Your task to perform on an android device: Open settings Image 0: 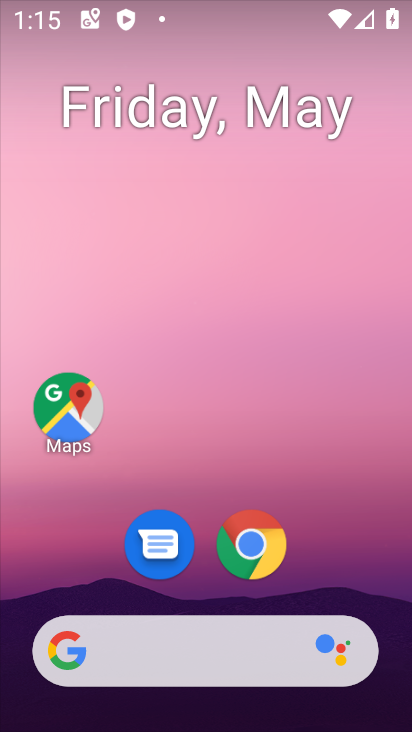
Step 0: drag from (20, 680) to (287, 155)
Your task to perform on an android device: Open settings Image 1: 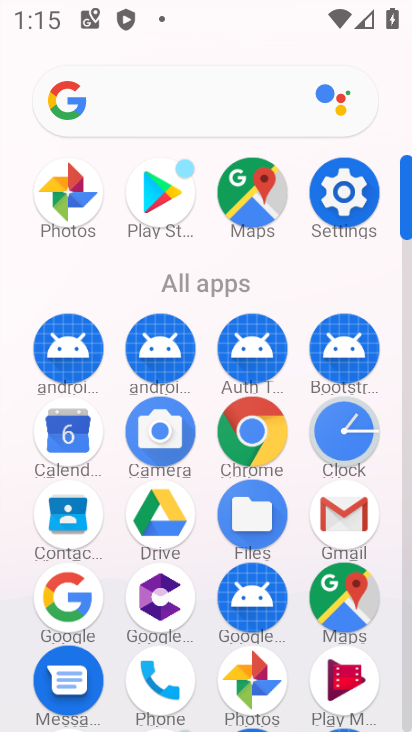
Step 1: click (334, 203)
Your task to perform on an android device: Open settings Image 2: 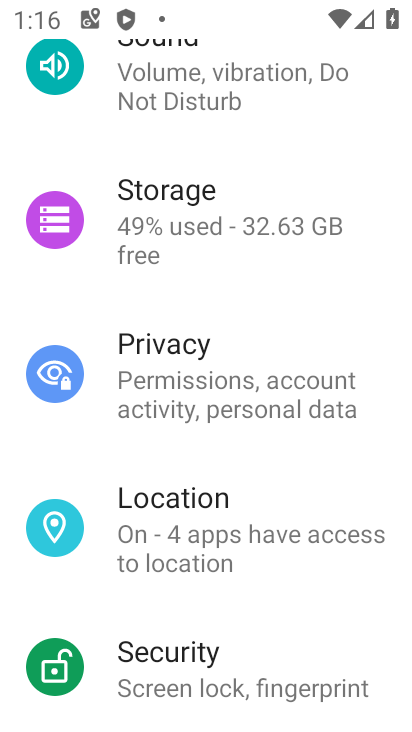
Step 2: task complete